Your task to perform on an android device: Add alienware aurora to the cart on ebay Image 0: 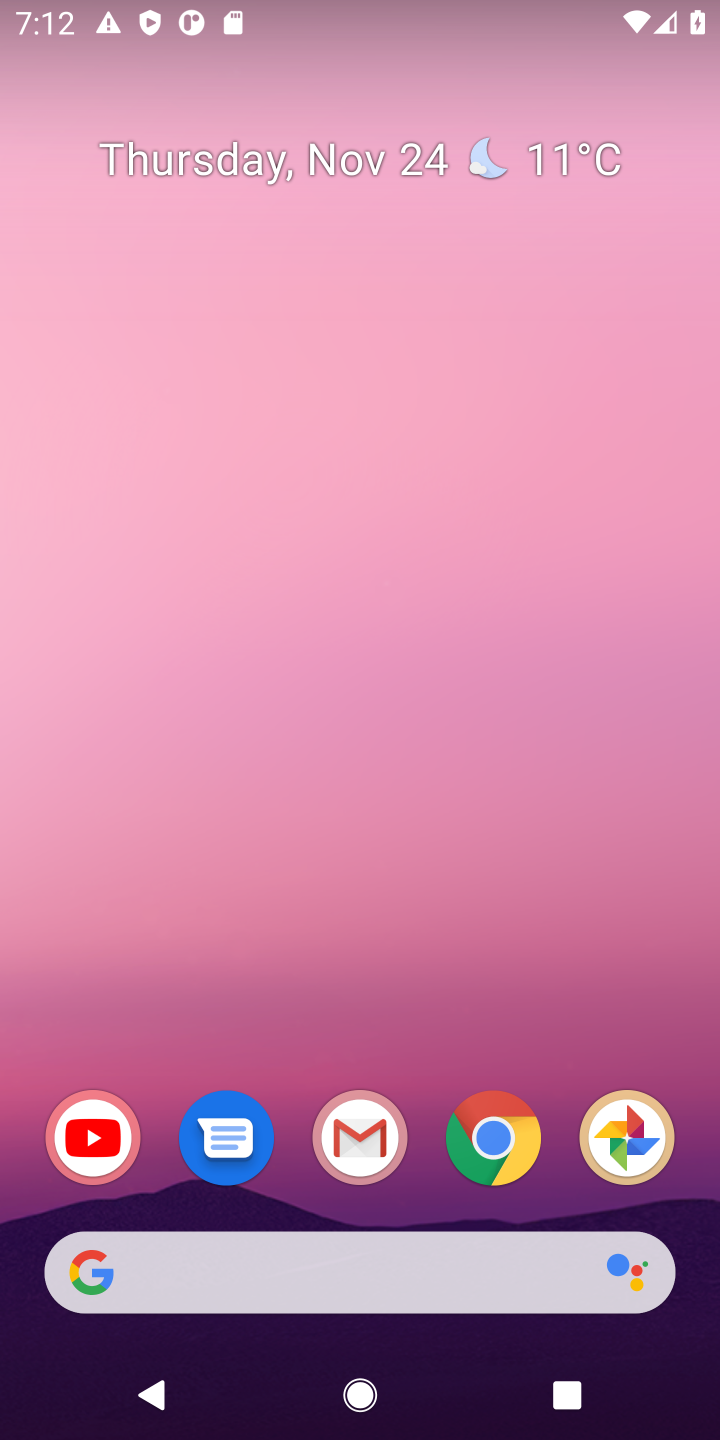
Step 0: drag from (359, 997) to (320, 189)
Your task to perform on an android device: Add alienware aurora to the cart on ebay Image 1: 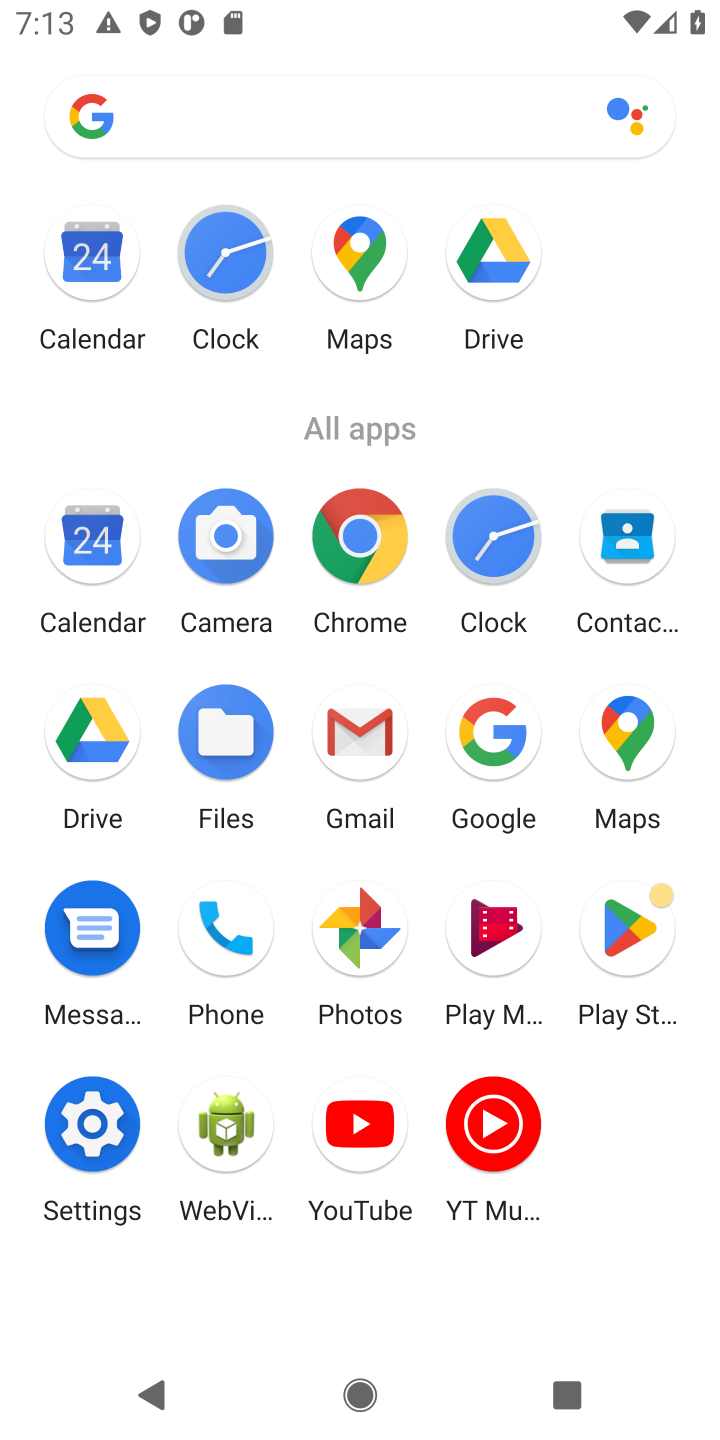
Step 1: click (503, 713)
Your task to perform on an android device: Add alienware aurora to the cart on ebay Image 2: 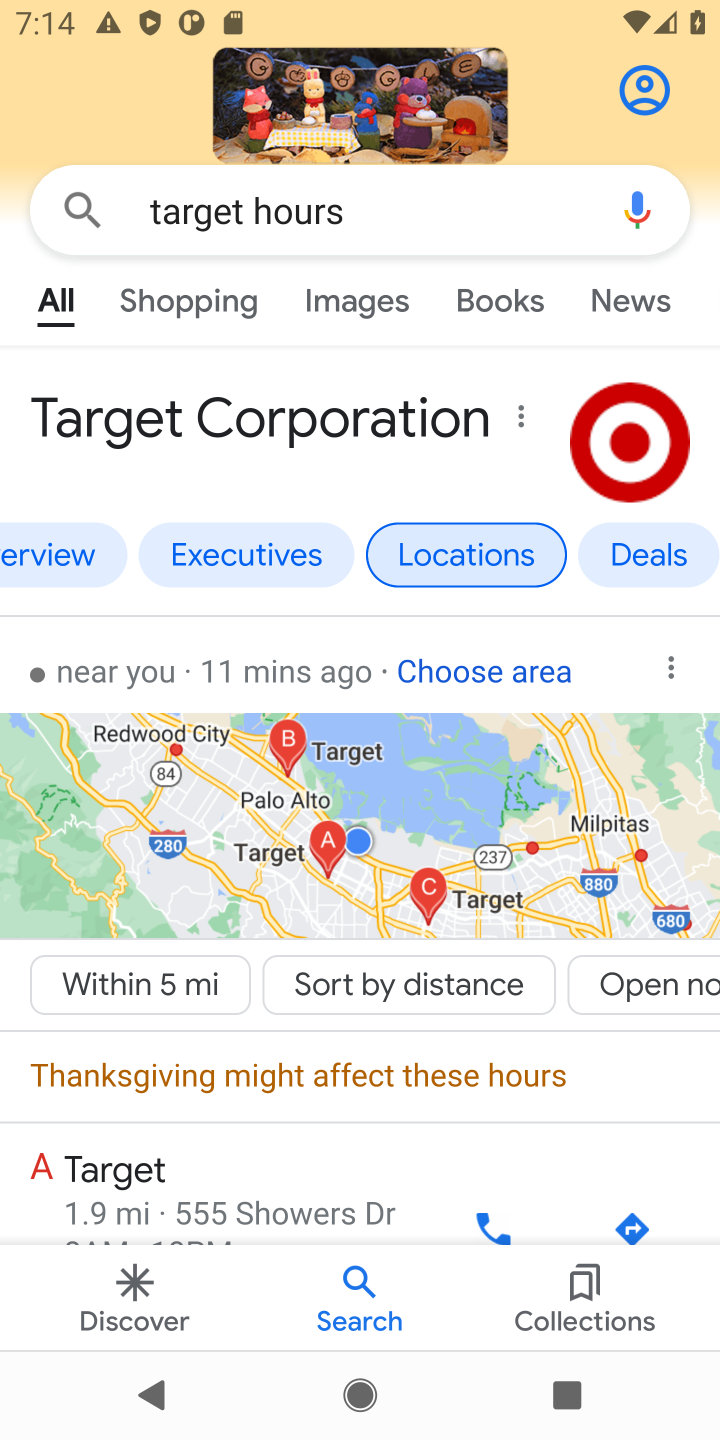
Step 2: click (517, 198)
Your task to perform on an android device: Add alienware aurora to the cart on ebay Image 3: 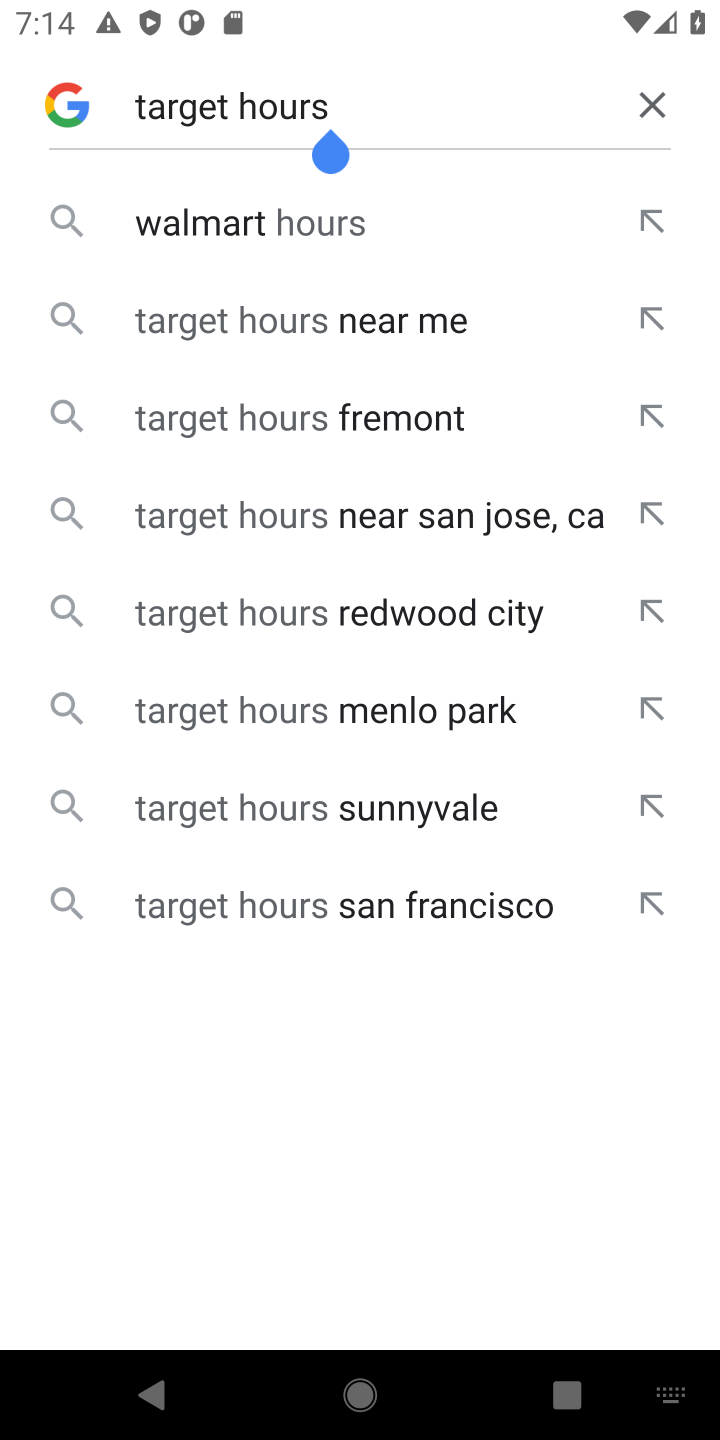
Step 3: click (658, 108)
Your task to perform on an android device: Add alienware aurora to the cart on ebay Image 4: 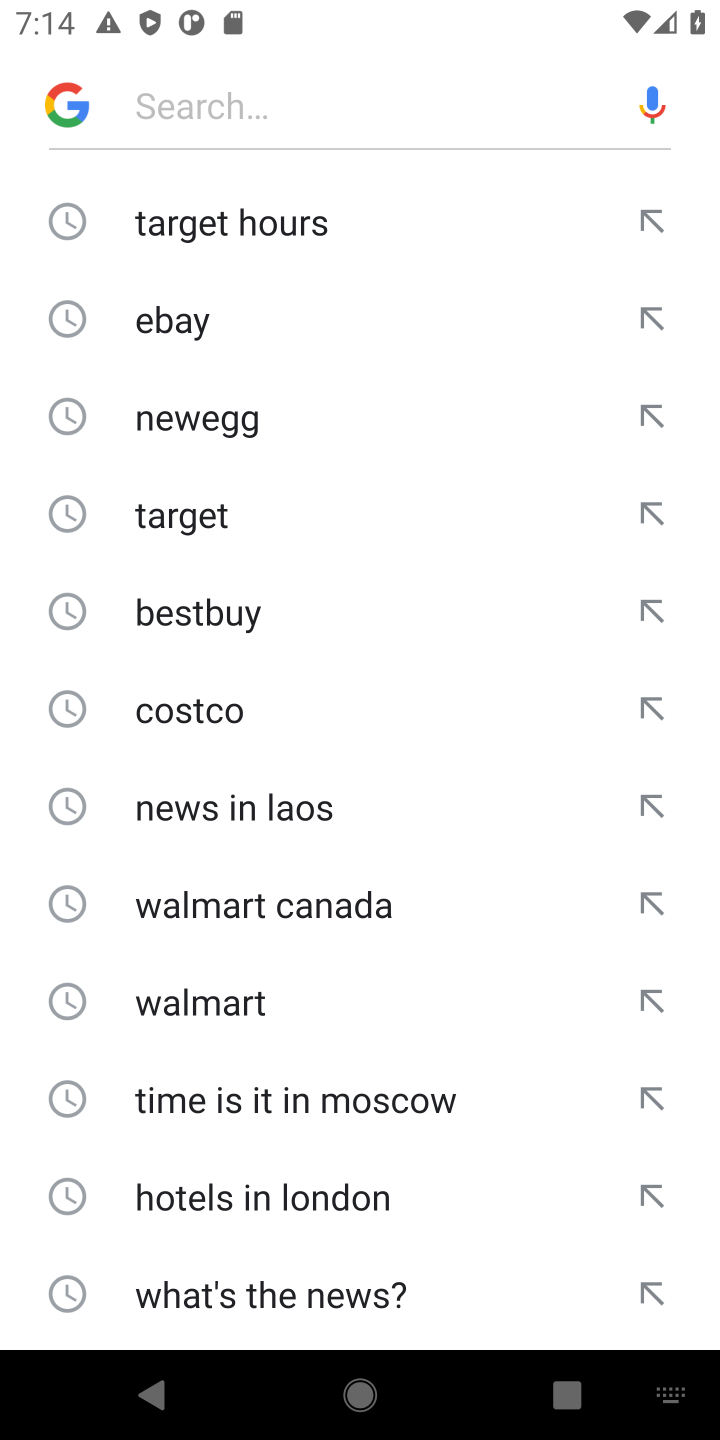
Step 4: type "ebay"
Your task to perform on an android device: Add alienware aurora to the cart on ebay Image 5: 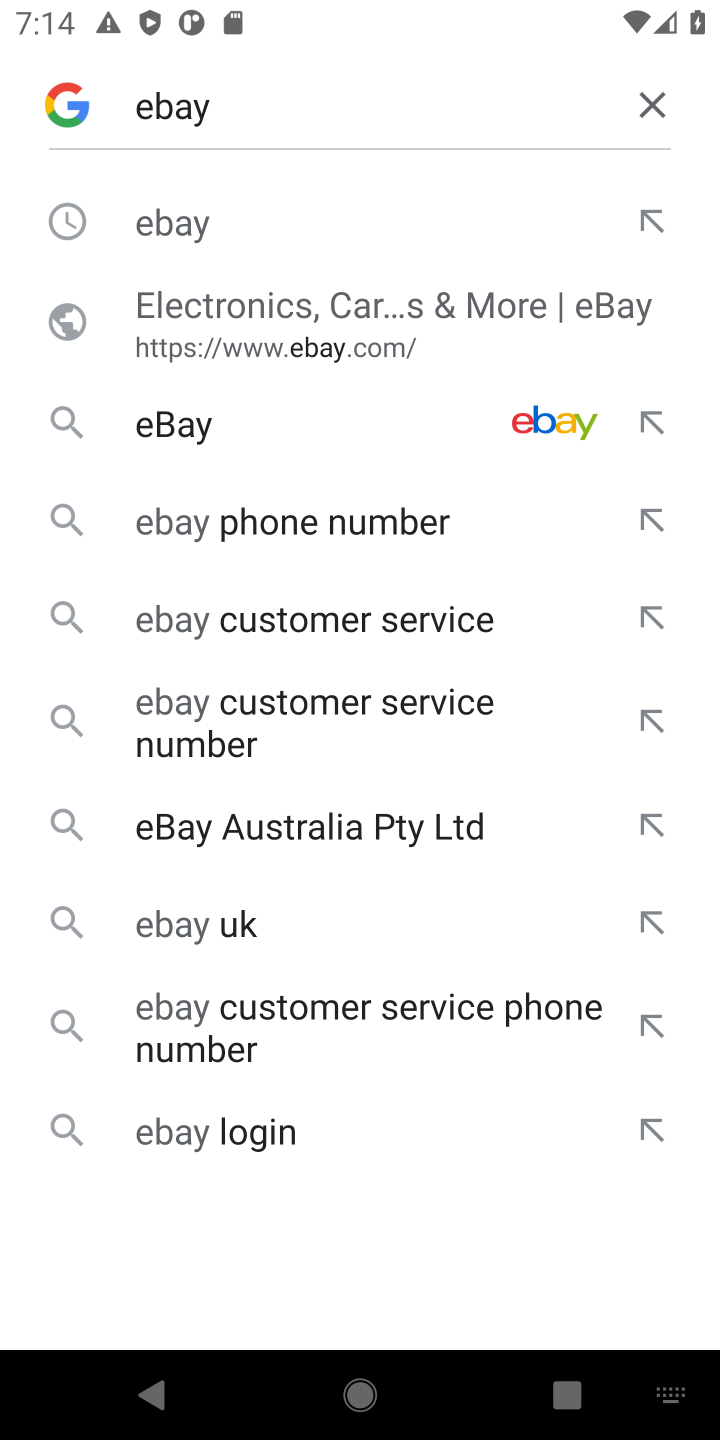
Step 5: click (497, 417)
Your task to perform on an android device: Add alienware aurora to the cart on ebay Image 6: 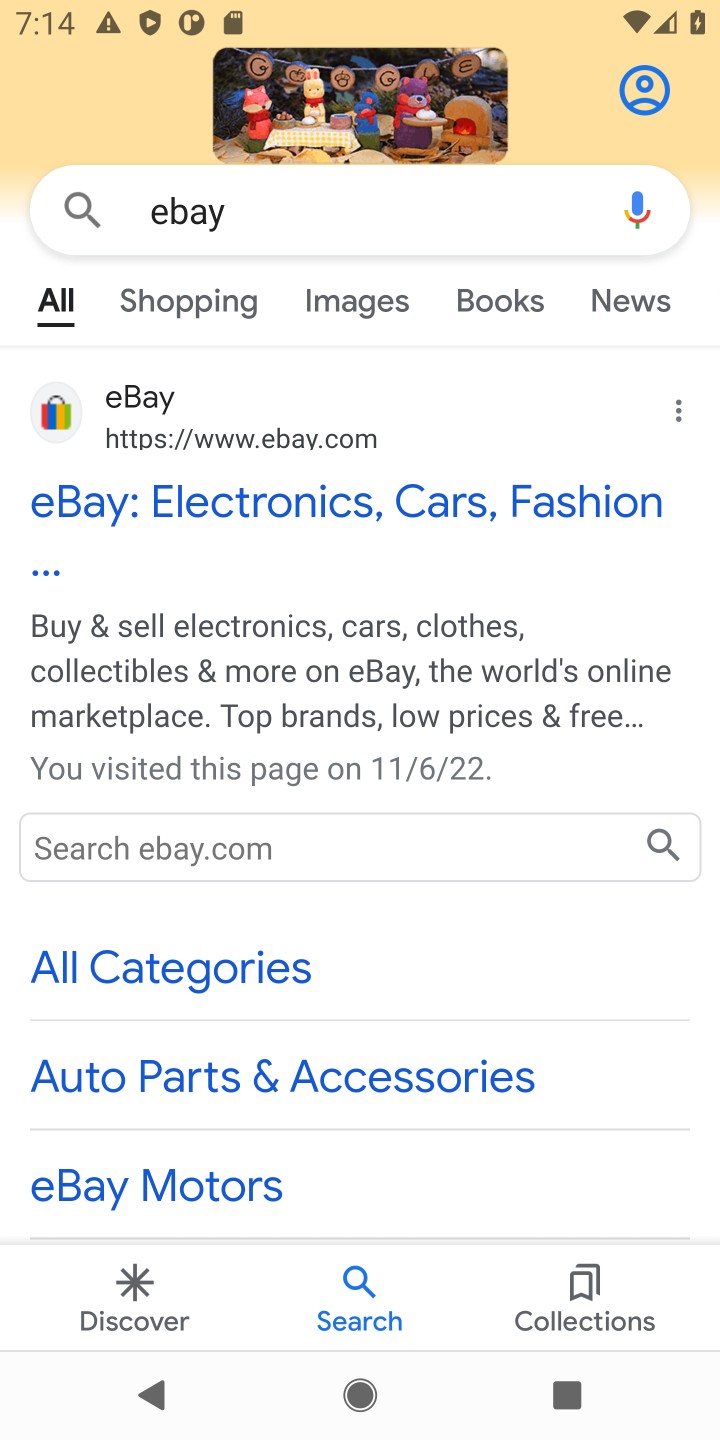
Step 6: click (144, 415)
Your task to perform on an android device: Add alienware aurora to the cart on ebay Image 7: 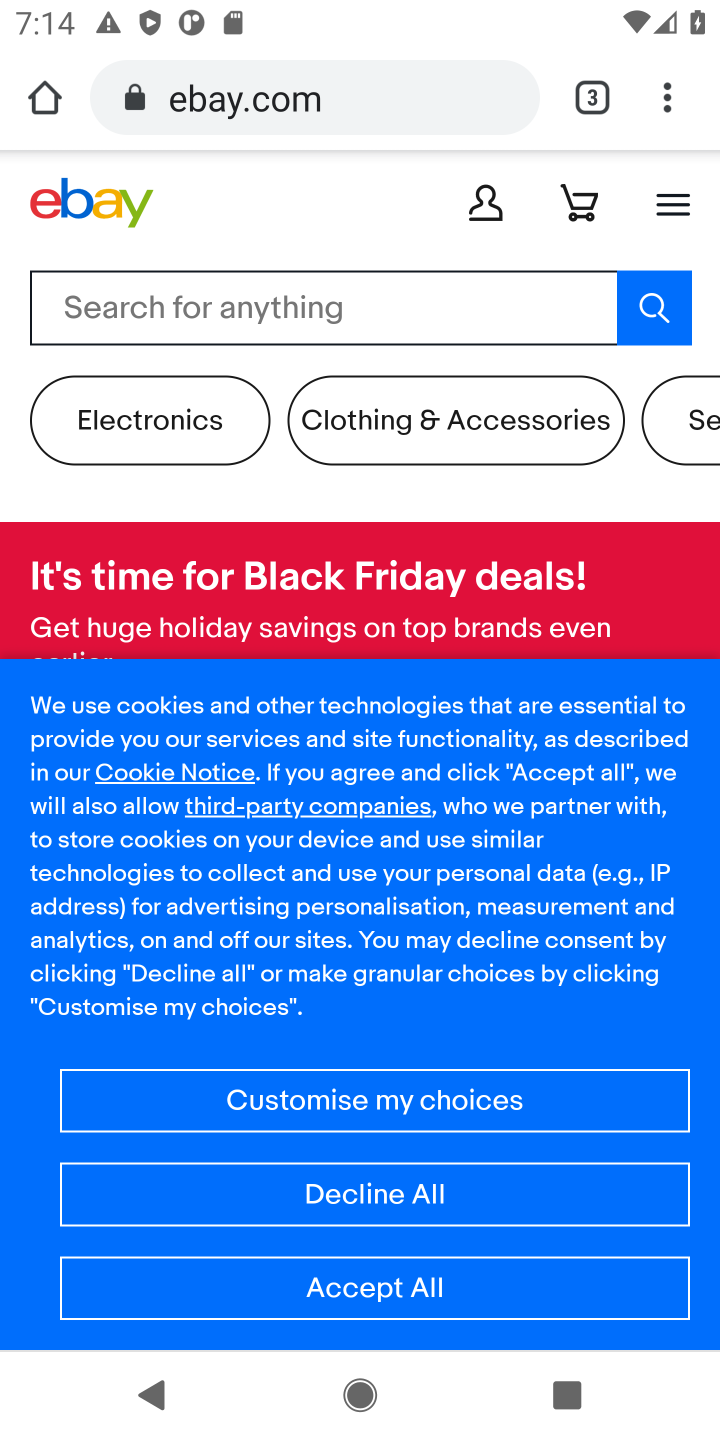
Step 7: click (360, 285)
Your task to perform on an android device: Add alienware aurora to the cart on ebay Image 8: 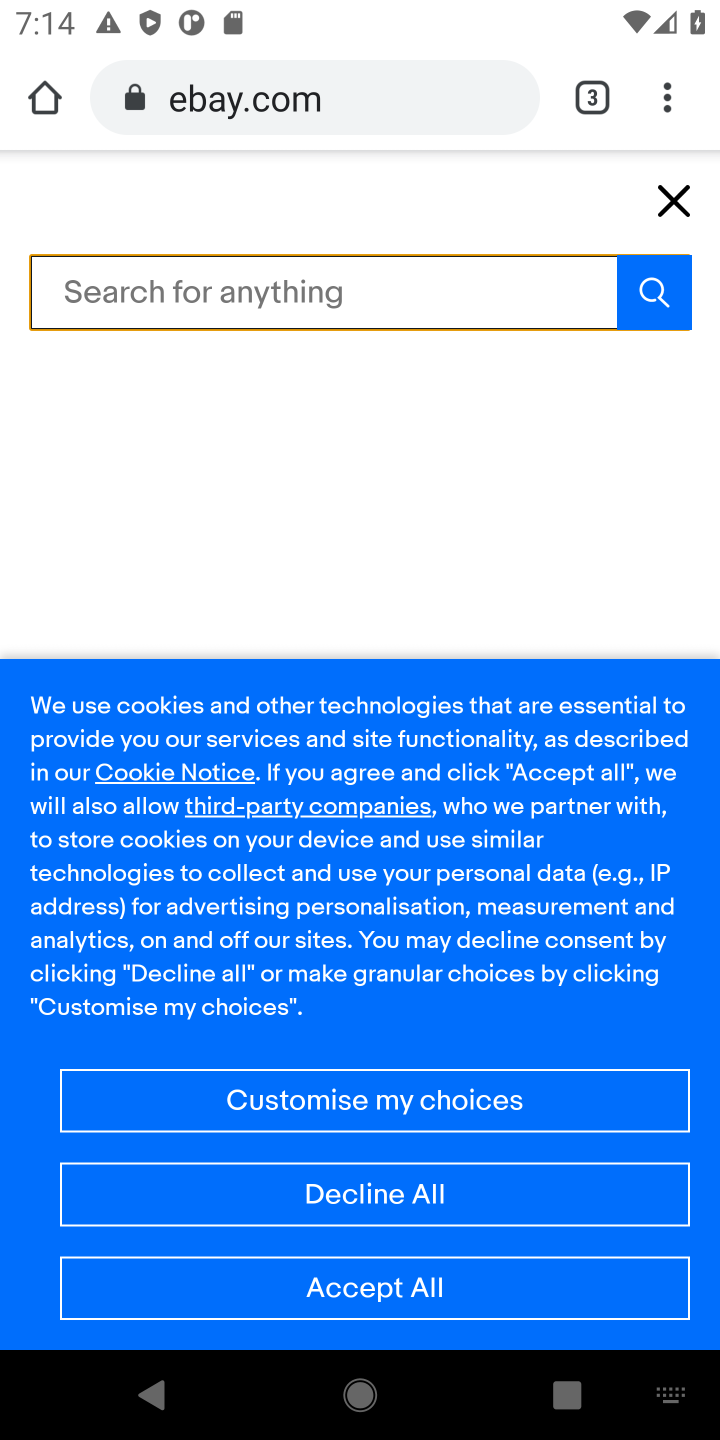
Step 8: click (348, 1300)
Your task to perform on an android device: Add alienware aurora to the cart on ebay Image 9: 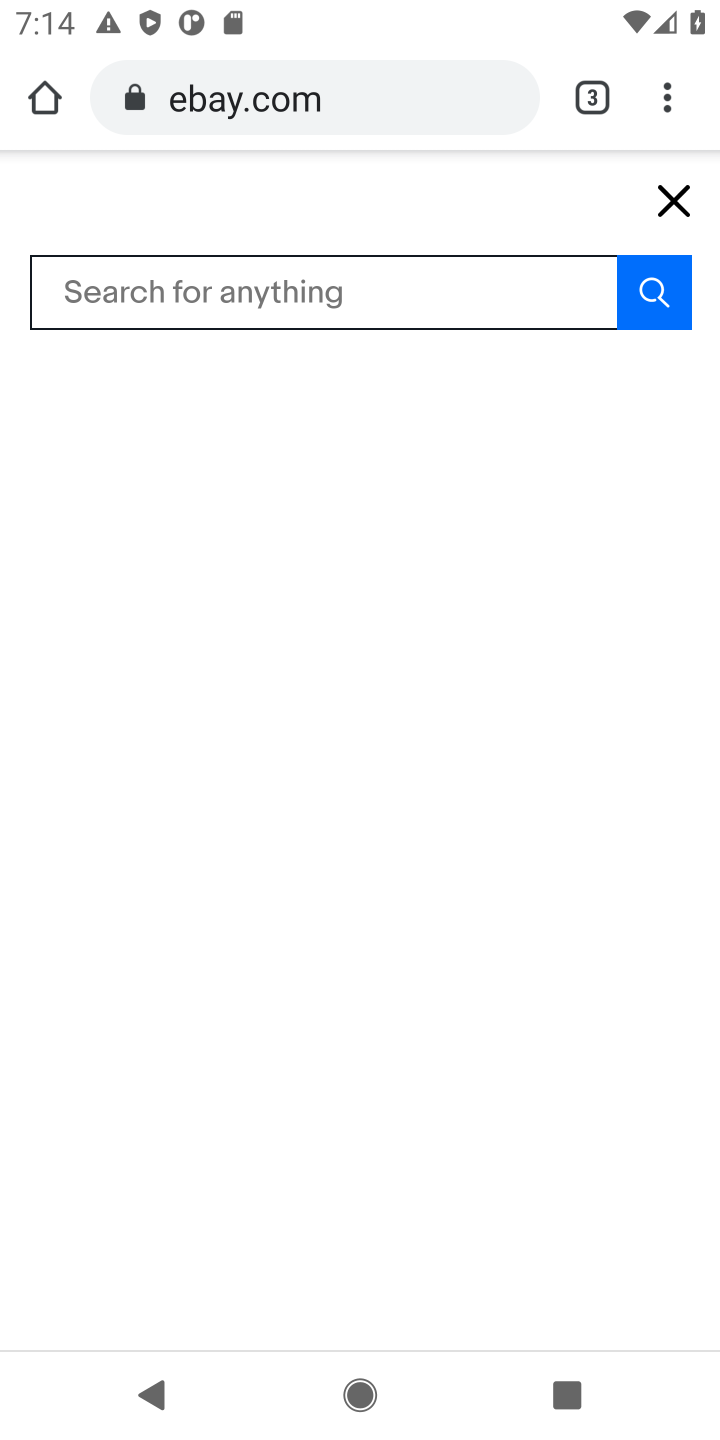
Step 9: click (494, 307)
Your task to perform on an android device: Add alienware aurora to the cart on ebay Image 10: 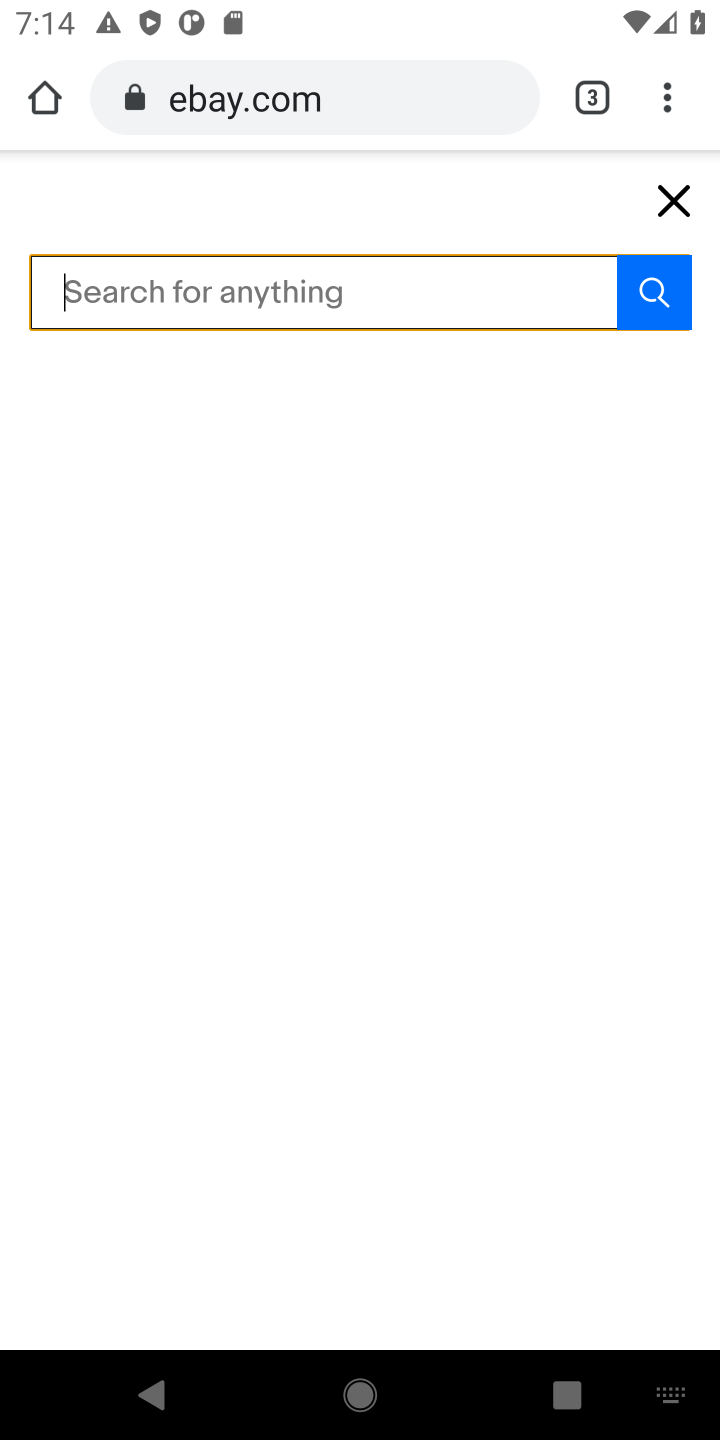
Step 10: type "ebay"
Your task to perform on an android device: Add alienware aurora to the cart on ebay Image 11: 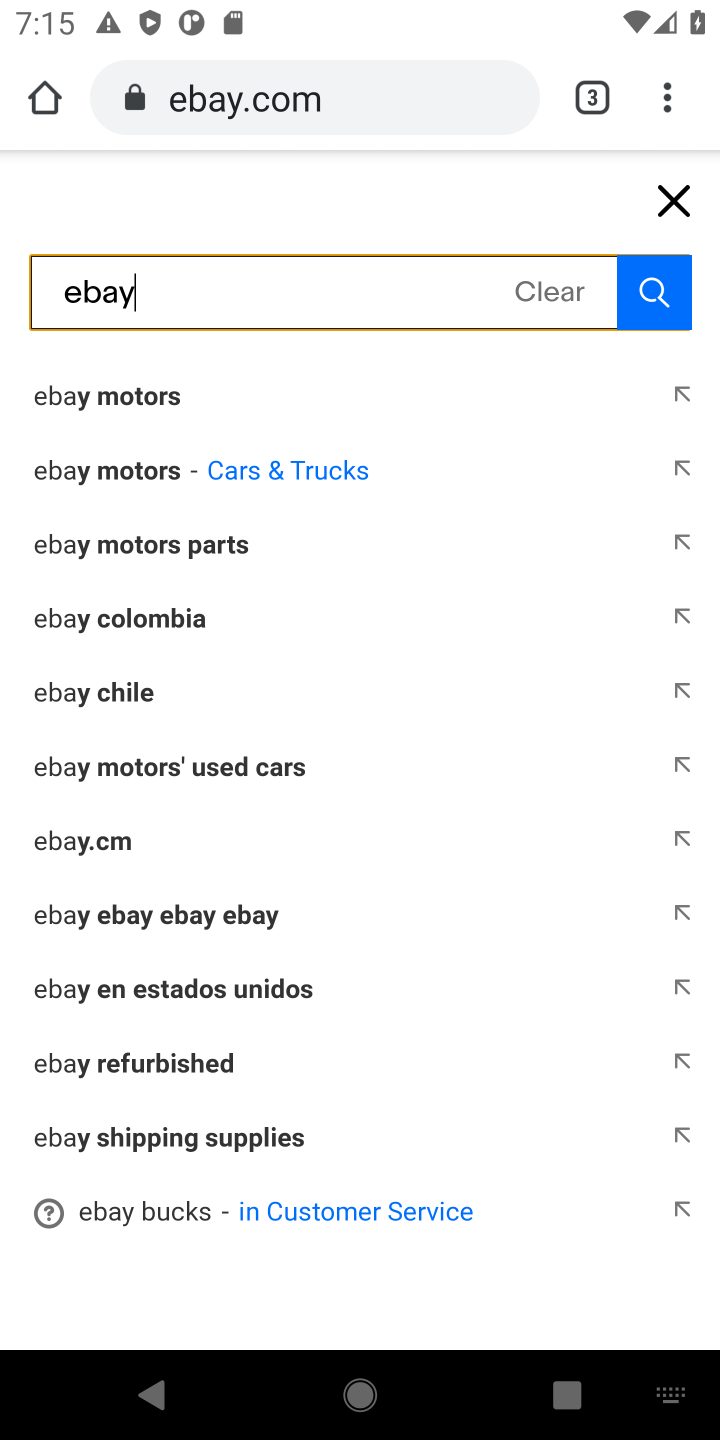
Step 11: click (544, 295)
Your task to perform on an android device: Add alienware aurora to the cart on ebay Image 12: 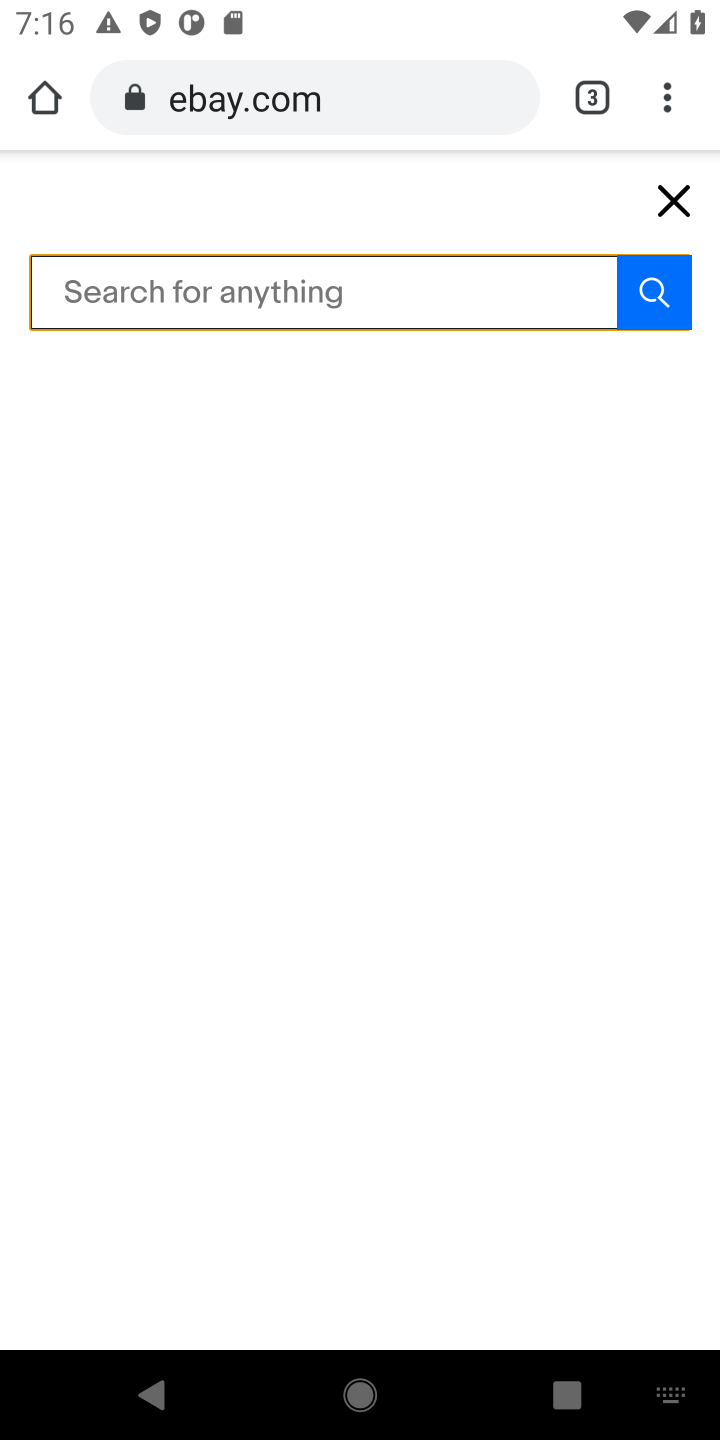
Step 12: type "alienware aurora"
Your task to perform on an android device: Add alienware aurora to the cart on ebay Image 13: 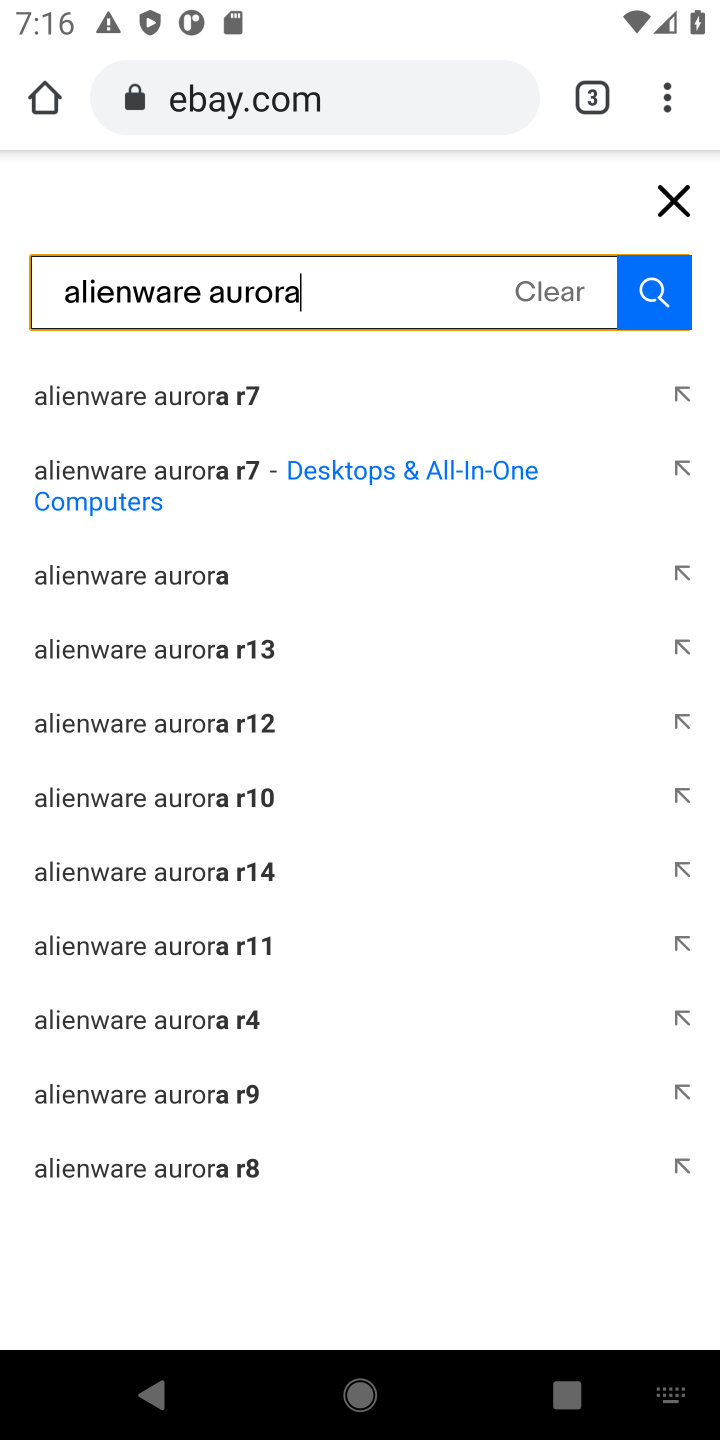
Step 13: click (675, 287)
Your task to perform on an android device: Add alienware aurora to the cart on ebay Image 14: 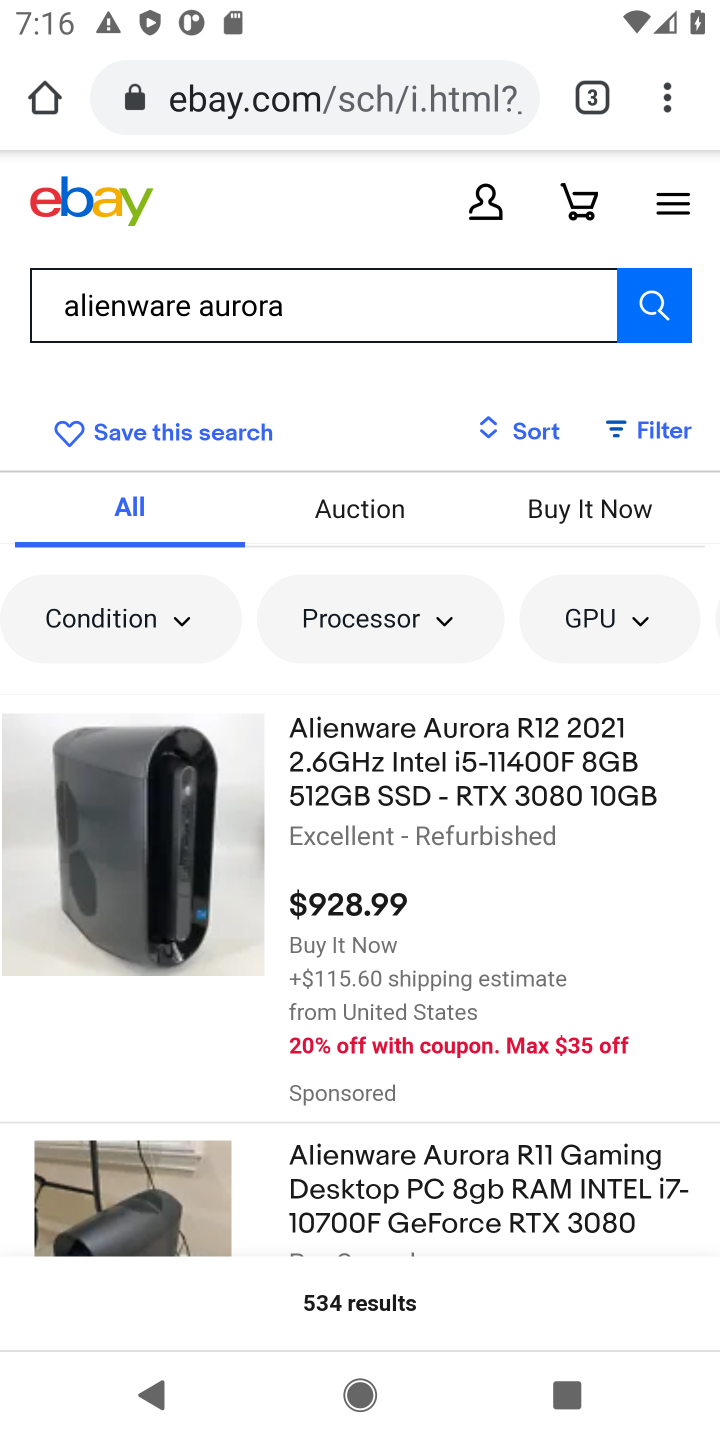
Step 14: click (377, 787)
Your task to perform on an android device: Add alienware aurora to the cart on ebay Image 15: 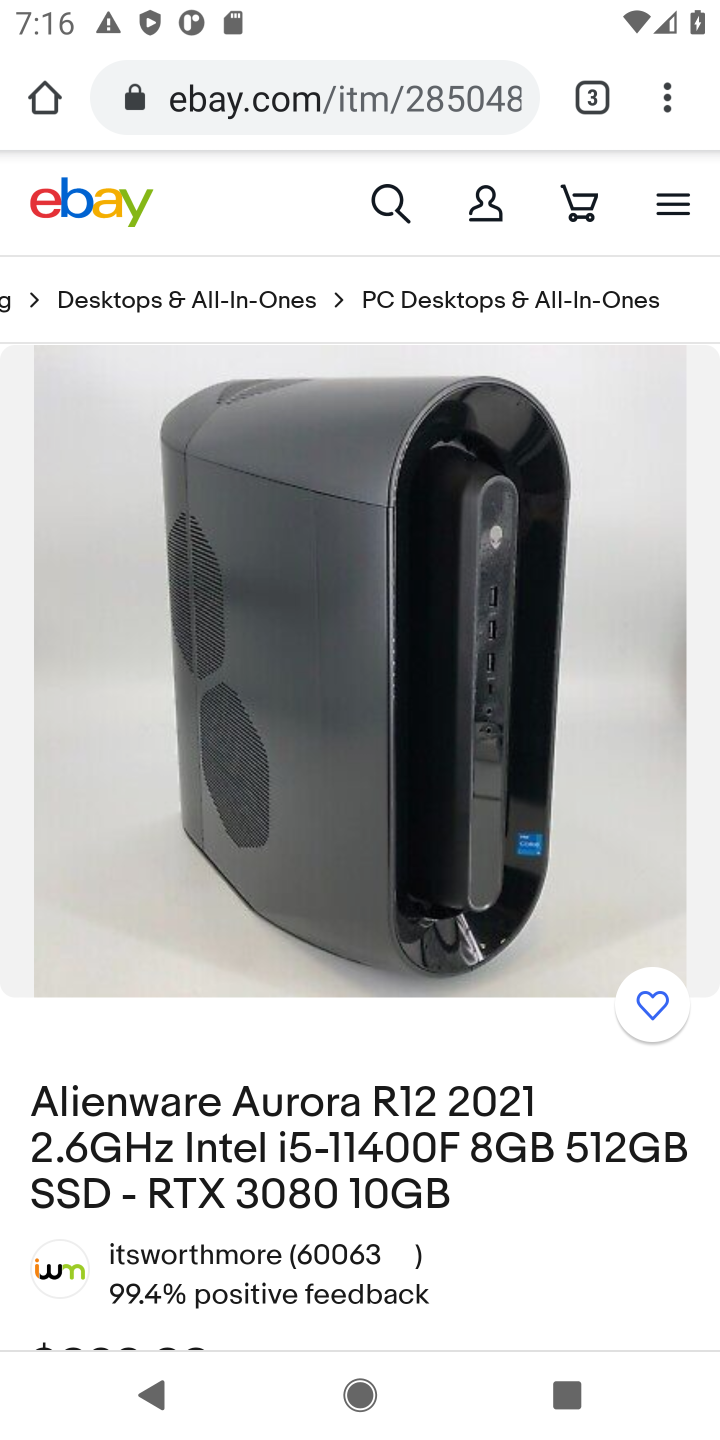
Step 15: click (307, 1100)
Your task to perform on an android device: Add alienware aurora to the cart on ebay Image 16: 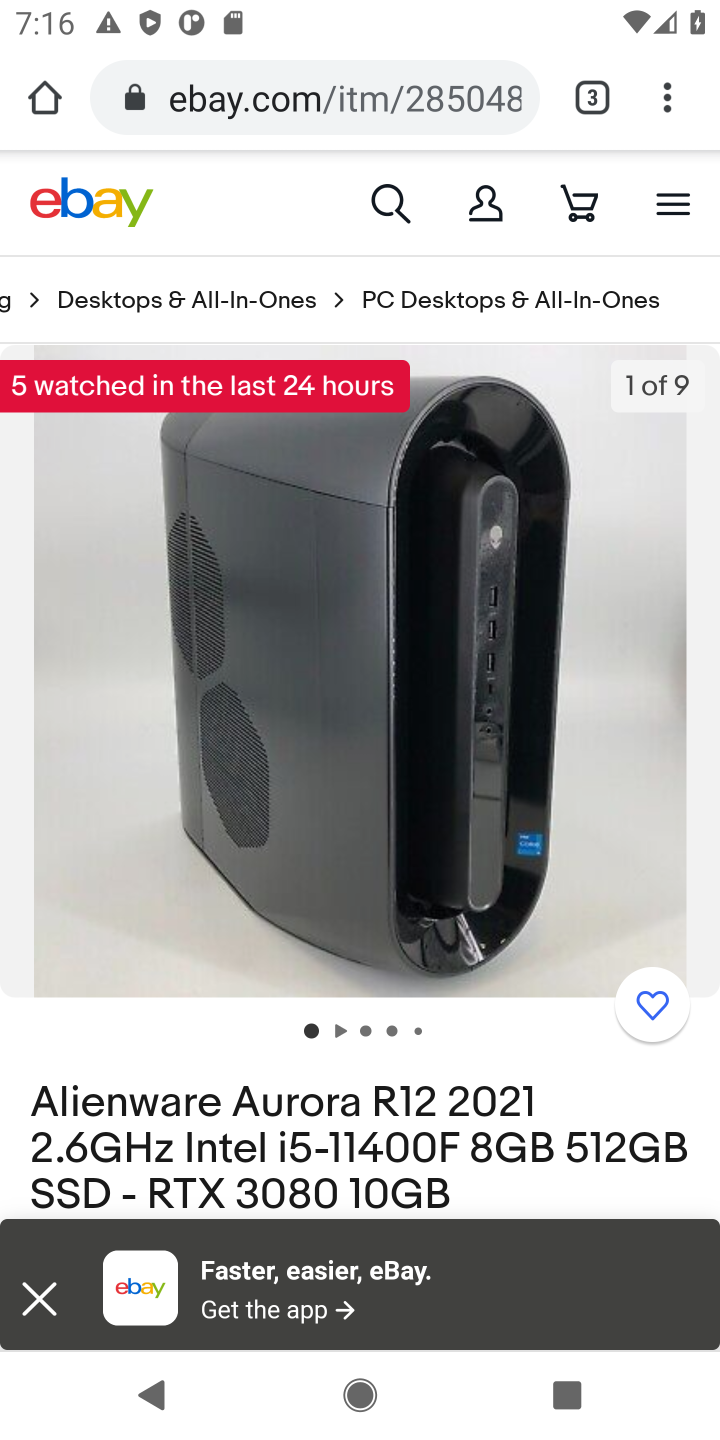
Step 16: drag from (461, 715) to (485, 599)
Your task to perform on an android device: Add alienware aurora to the cart on ebay Image 17: 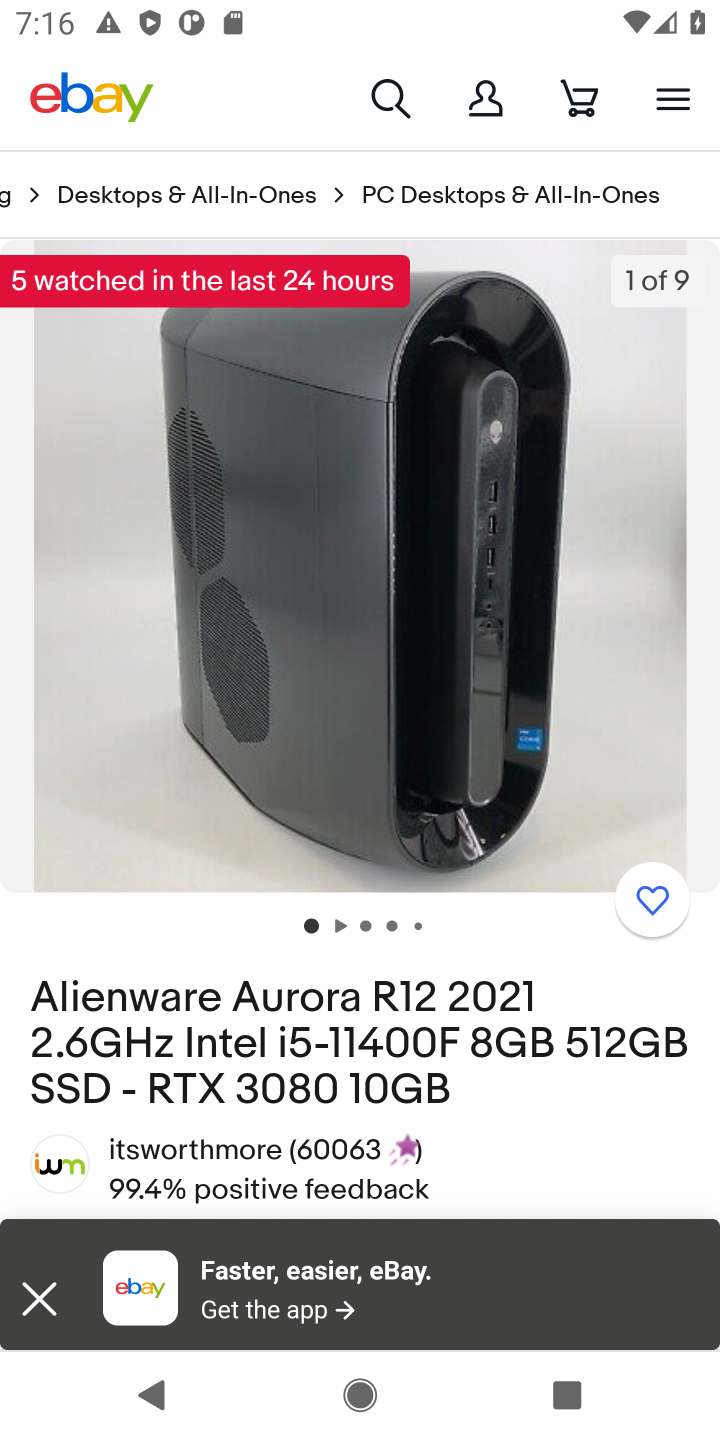
Step 17: drag from (543, 1126) to (539, 691)
Your task to perform on an android device: Add alienware aurora to the cart on ebay Image 18: 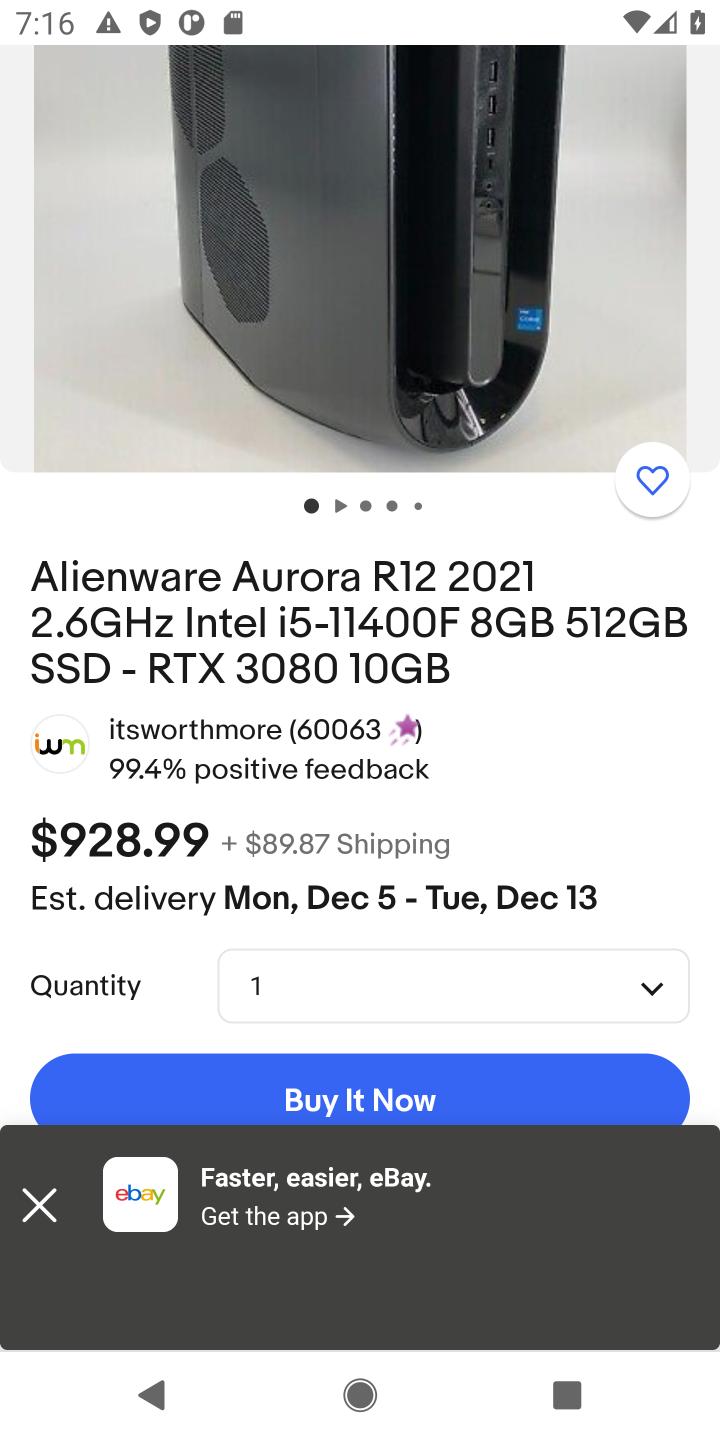
Step 18: drag from (401, 713) to (515, 289)
Your task to perform on an android device: Add alienware aurora to the cart on ebay Image 19: 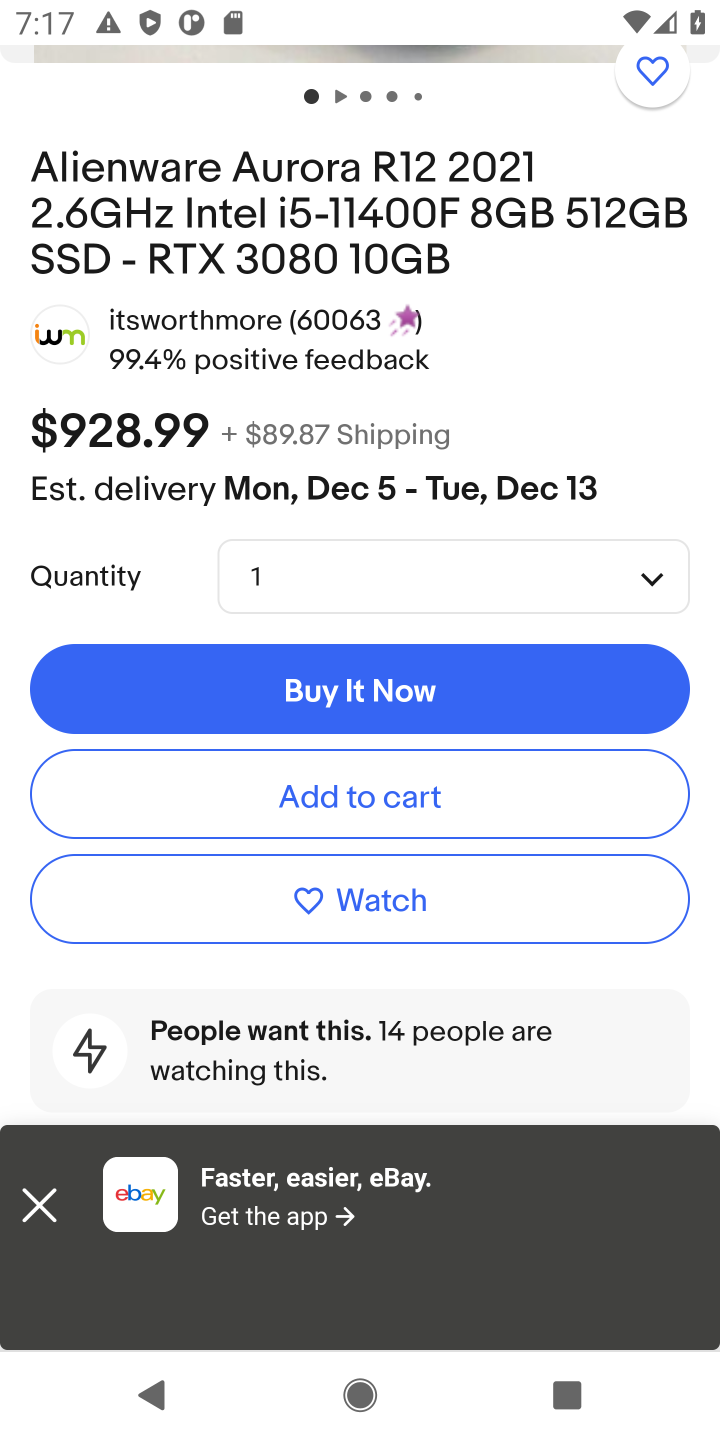
Step 19: click (41, 1212)
Your task to perform on an android device: Add alienware aurora to the cart on ebay Image 20: 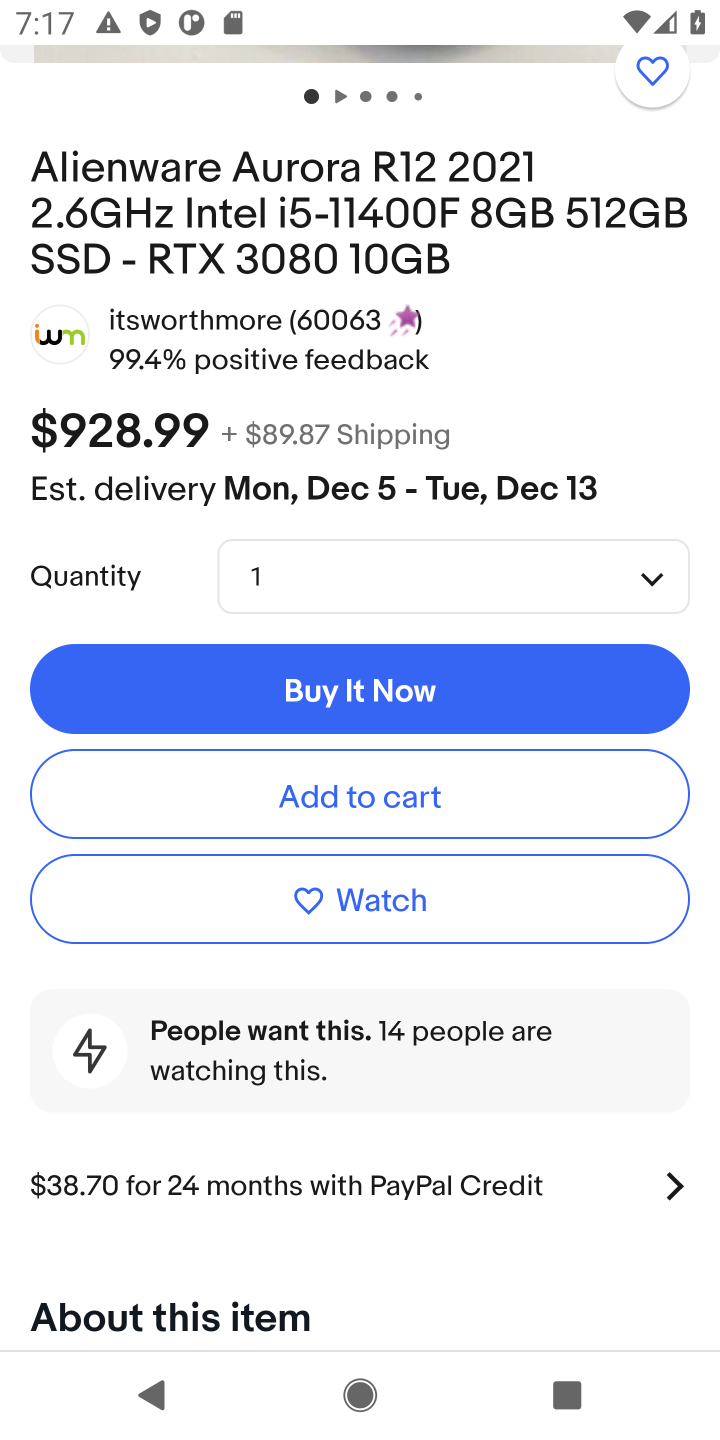
Step 20: click (388, 799)
Your task to perform on an android device: Add alienware aurora to the cart on ebay Image 21: 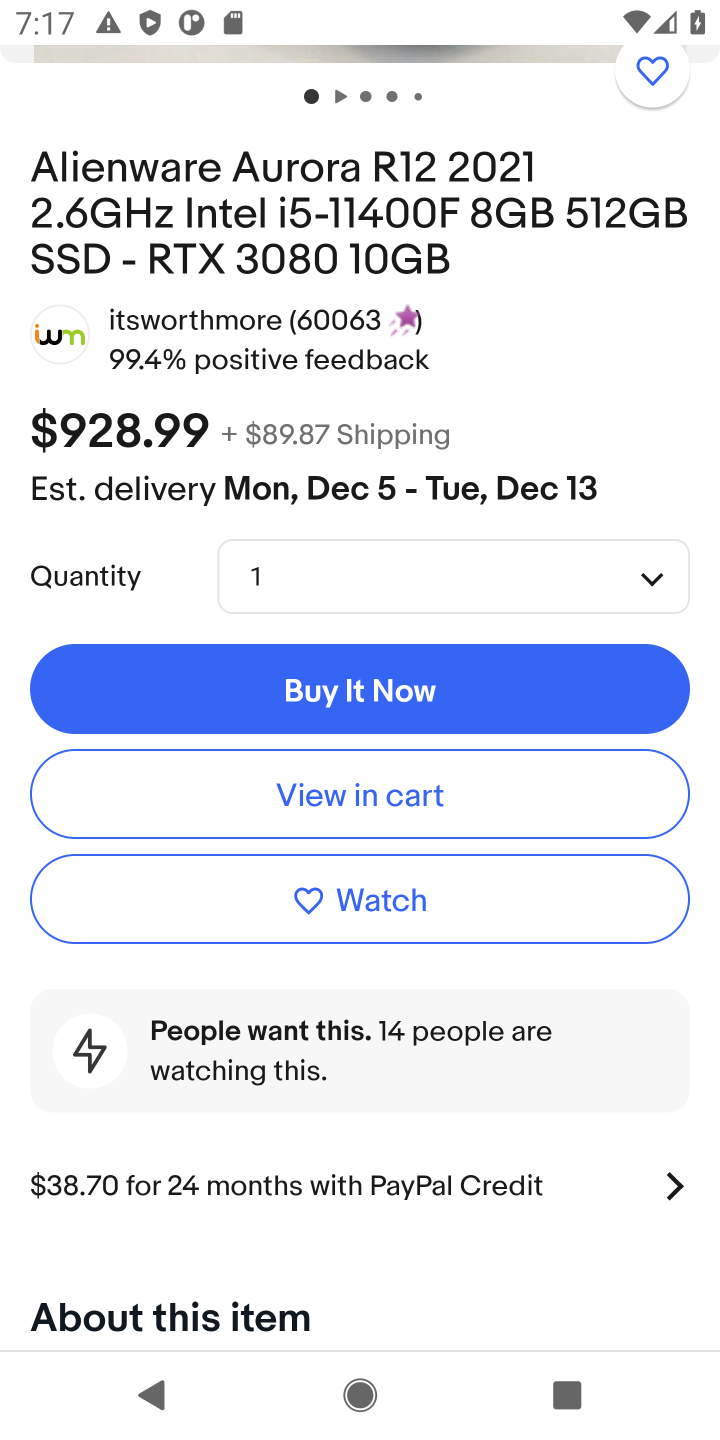
Step 21: task complete